Your task to perform on an android device: open sync settings in chrome Image 0: 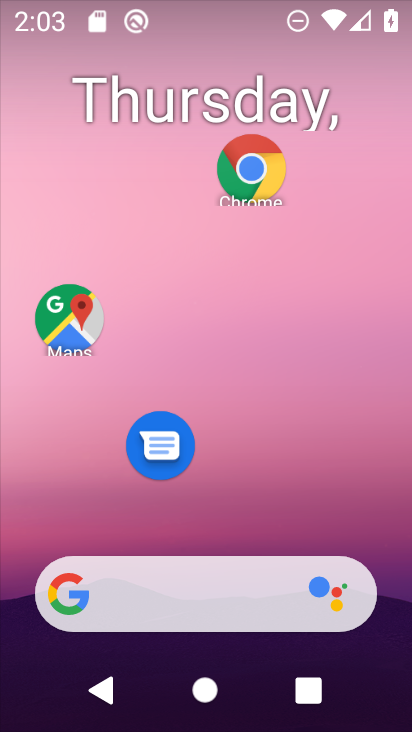
Step 0: drag from (229, 615) to (159, 218)
Your task to perform on an android device: open sync settings in chrome Image 1: 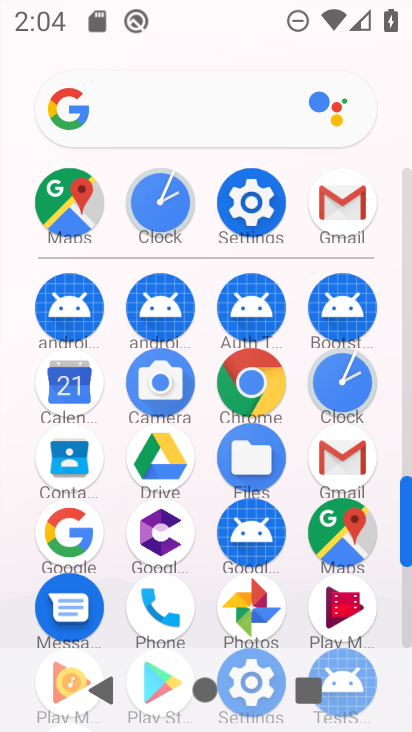
Step 1: click (249, 374)
Your task to perform on an android device: open sync settings in chrome Image 2: 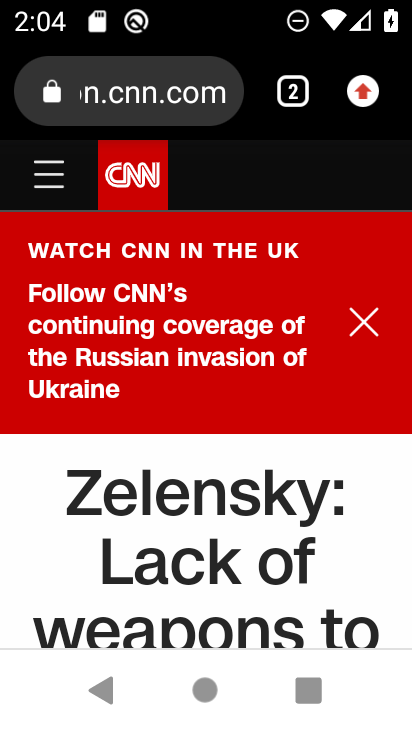
Step 2: click (357, 318)
Your task to perform on an android device: open sync settings in chrome Image 3: 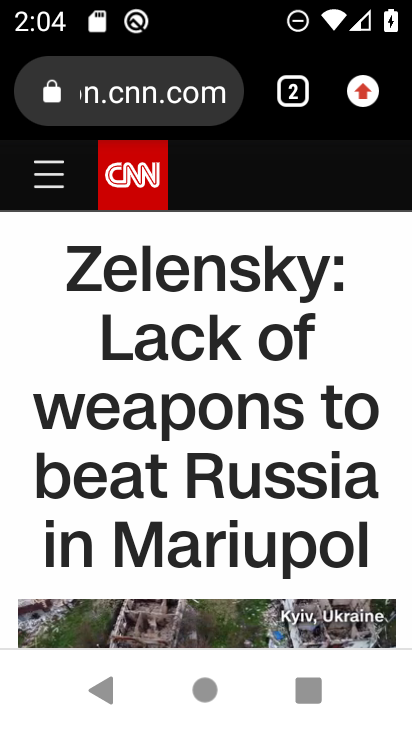
Step 3: click (372, 104)
Your task to perform on an android device: open sync settings in chrome Image 4: 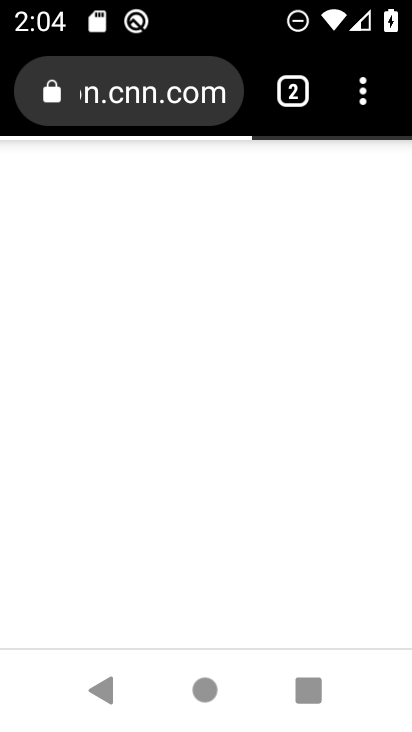
Step 4: click (363, 92)
Your task to perform on an android device: open sync settings in chrome Image 5: 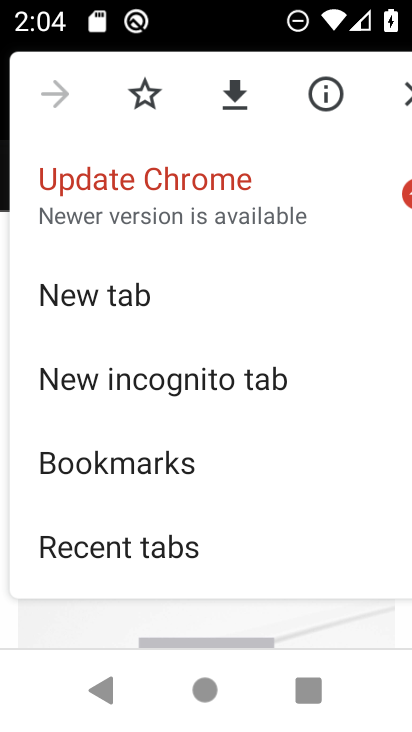
Step 5: drag from (163, 549) to (210, 297)
Your task to perform on an android device: open sync settings in chrome Image 6: 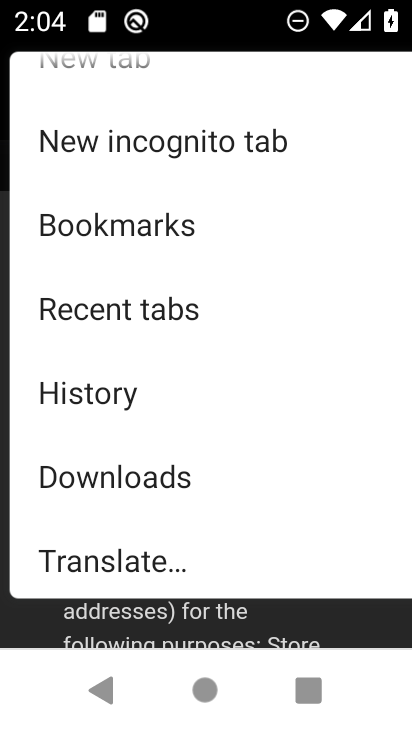
Step 6: drag from (184, 455) to (233, 219)
Your task to perform on an android device: open sync settings in chrome Image 7: 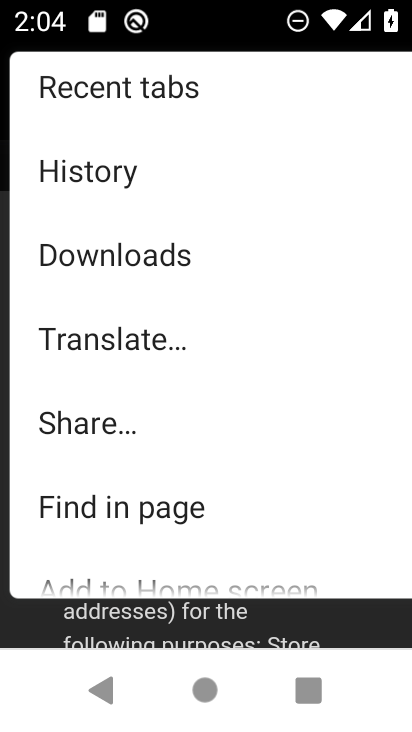
Step 7: drag from (179, 430) to (196, 225)
Your task to perform on an android device: open sync settings in chrome Image 8: 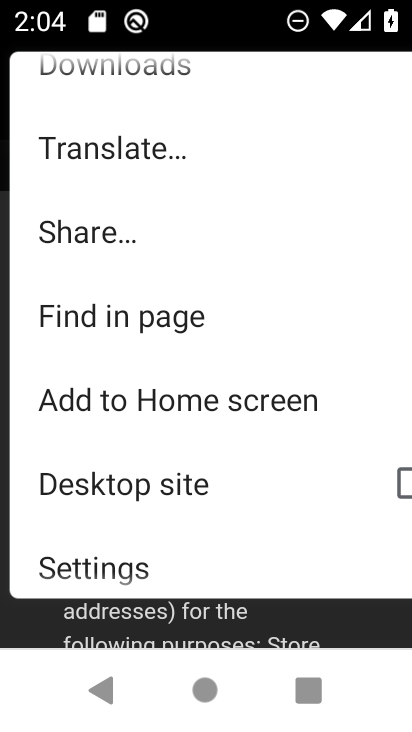
Step 8: click (135, 558)
Your task to perform on an android device: open sync settings in chrome Image 9: 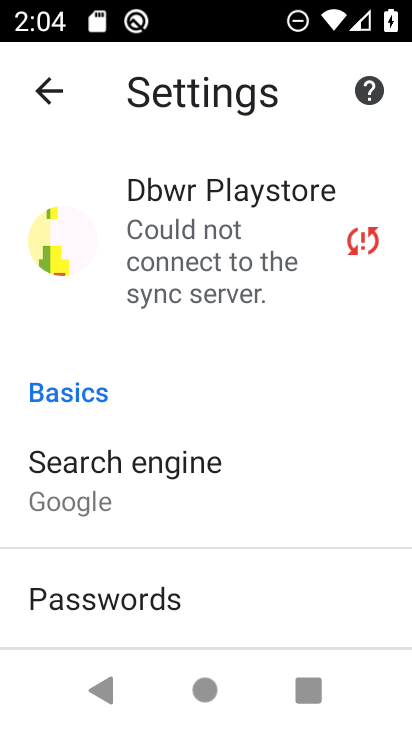
Step 9: drag from (189, 612) to (245, 329)
Your task to perform on an android device: open sync settings in chrome Image 10: 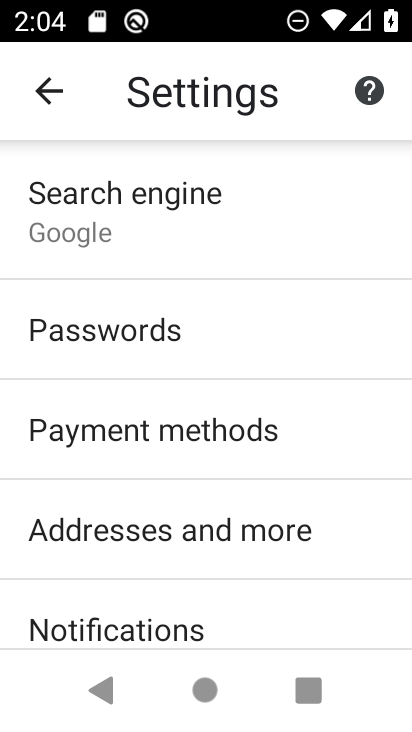
Step 10: drag from (150, 560) to (212, 333)
Your task to perform on an android device: open sync settings in chrome Image 11: 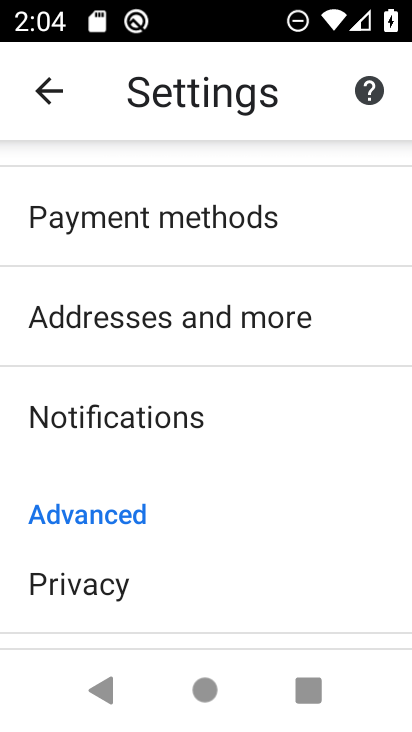
Step 11: drag from (161, 529) to (227, 303)
Your task to perform on an android device: open sync settings in chrome Image 12: 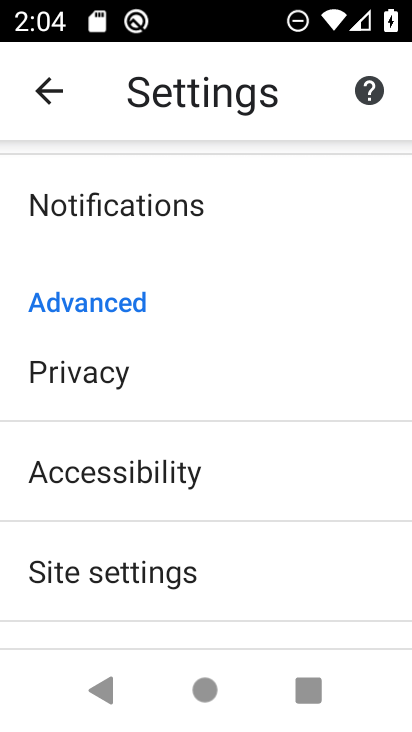
Step 12: click (77, 570)
Your task to perform on an android device: open sync settings in chrome Image 13: 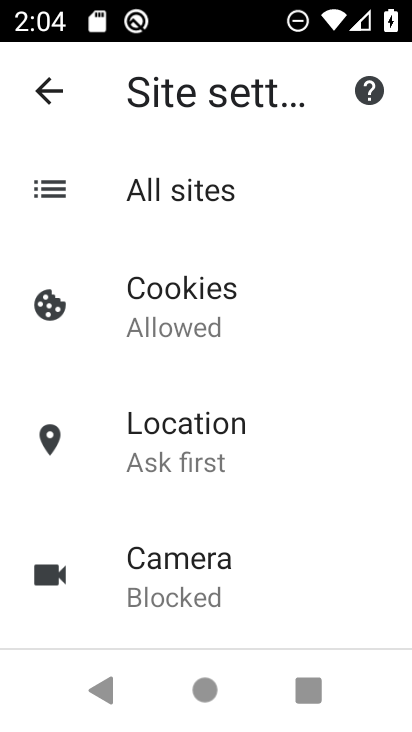
Step 13: drag from (162, 578) to (205, 377)
Your task to perform on an android device: open sync settings in chrome Image 14: 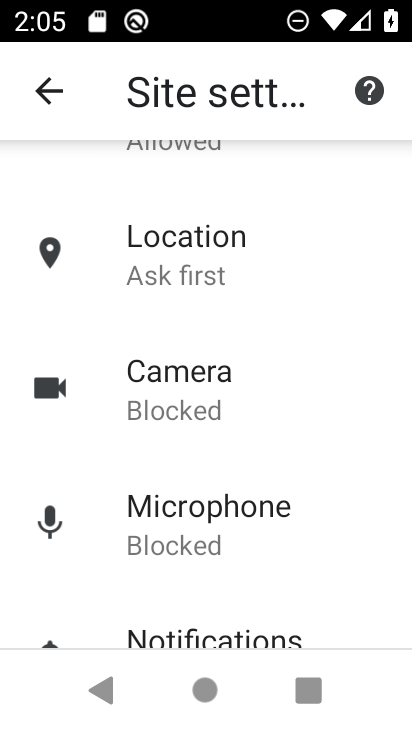
Step 14: drag from (186, 537) to (217, 377)
Your task to perform on an android device: open sync settings in chrome Image 15: 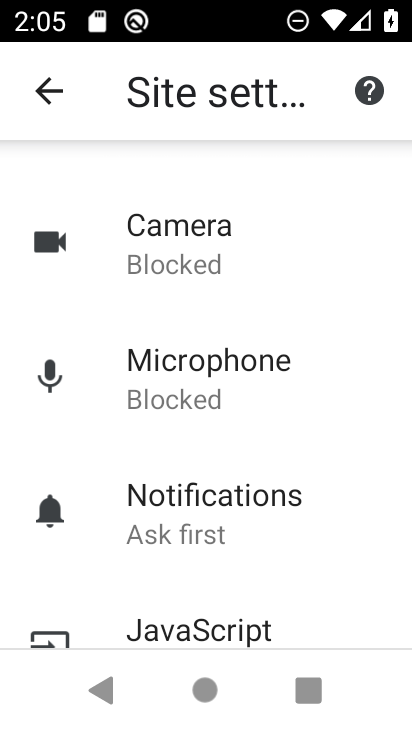
Step 15: drag from (196, 560) to (254, 345)
Your task to perform on an android device: open sync settings in chrome Image 16: 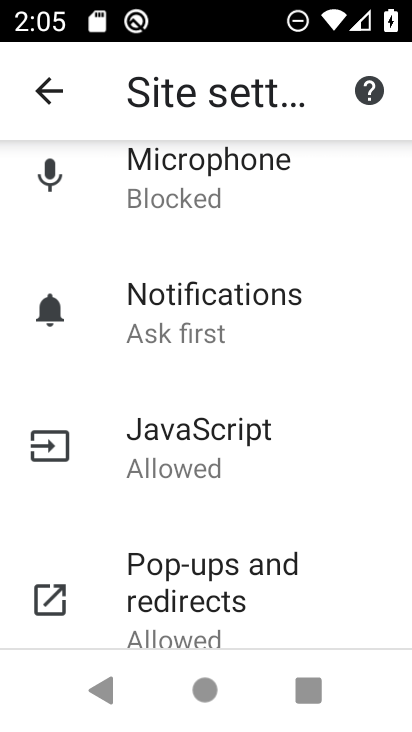
Step 16: drag from (178, 580) to (209, 401)
Your task to perform on an android device: open sync settings in chrome Image 17: 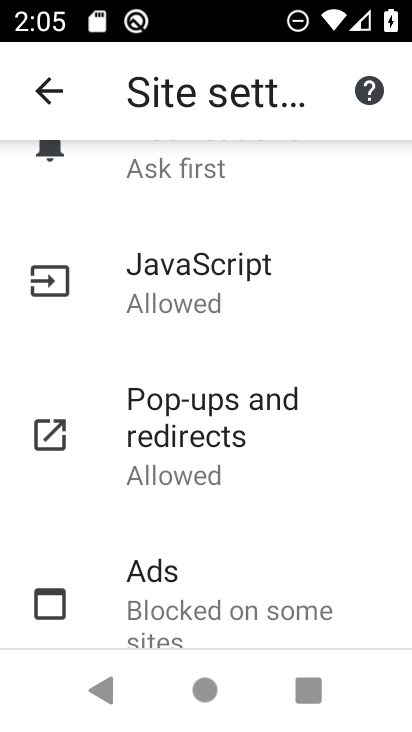
Step 17: drag from (181, 570) to (201, 422)
Your task to perform on an android device: open sync settings in chrome Image 18: 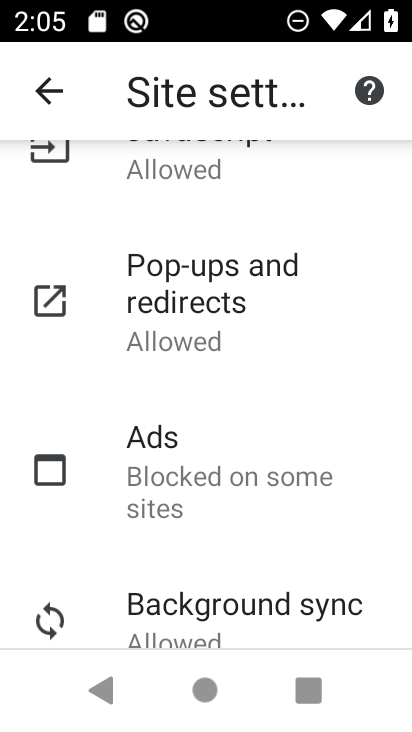
Step 18: click (163, 601)
Your task to perform on an android device: open sync settings in chrome Image 19: 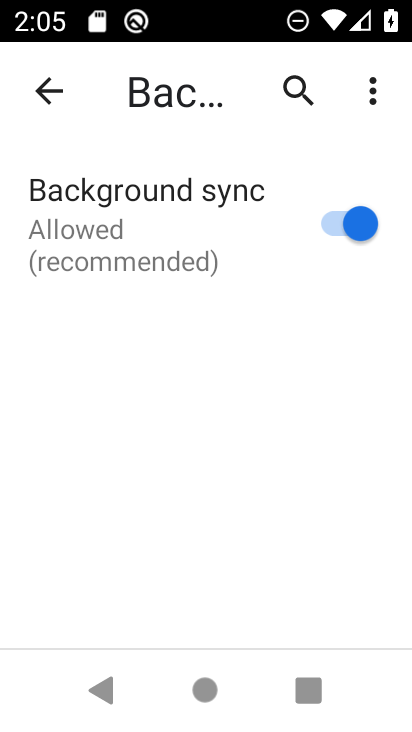
Step 19: task complete